Your task to perform on an android device: Open the Play Movies app and select the watchlist tab. Image 0: 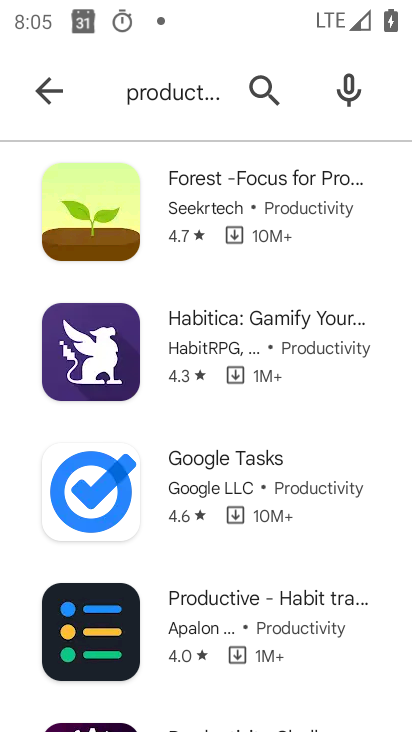
Step 0: press home button
Your task to perform on an android device: Open the Play Movies app and select the watchlist tab. Image 1: 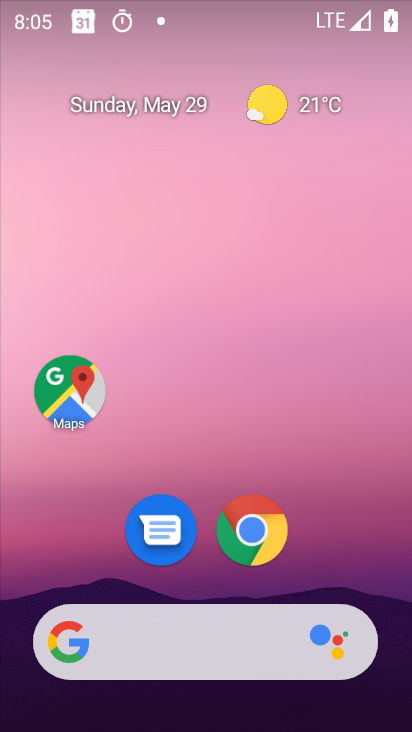
Step 1: drag from (258, 668) to (169, 107)
Your task to perform on an android device: Open the Play Movies app and select the watchlist tab. Image 2: 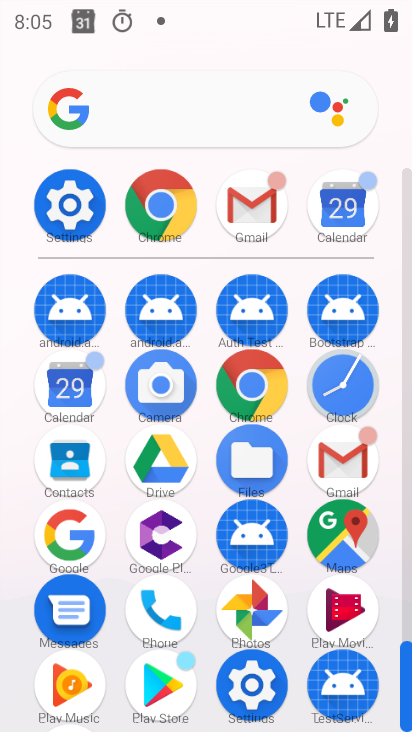
Step 2: click (351, 611)
Your task to perform on an android device: Open the Play Movies app and select the watchlist tab. Image 3: 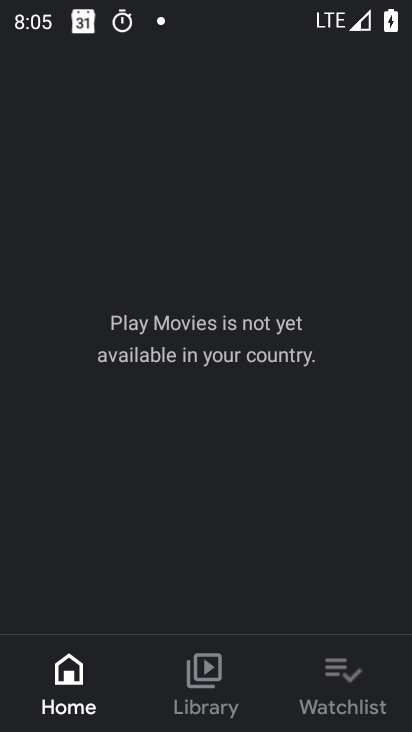
Step 3: click (347, 696)
Your task to perform on an android device: Open the Play Movies app and select the watchlist tab. Image 4: 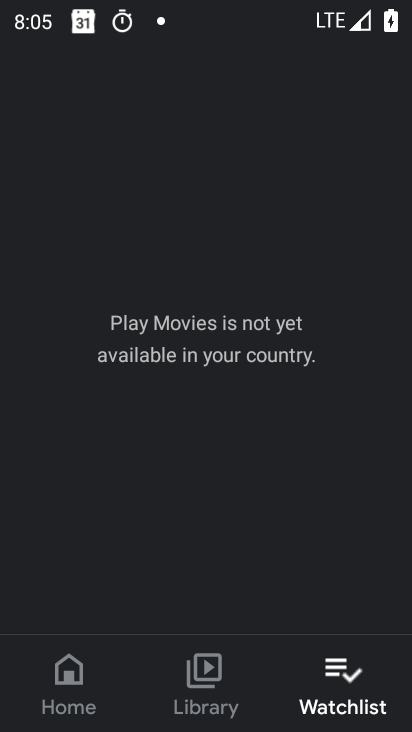
Step 4: task complete